Your task to perform on an android device: change the clock display to digital Image 0: 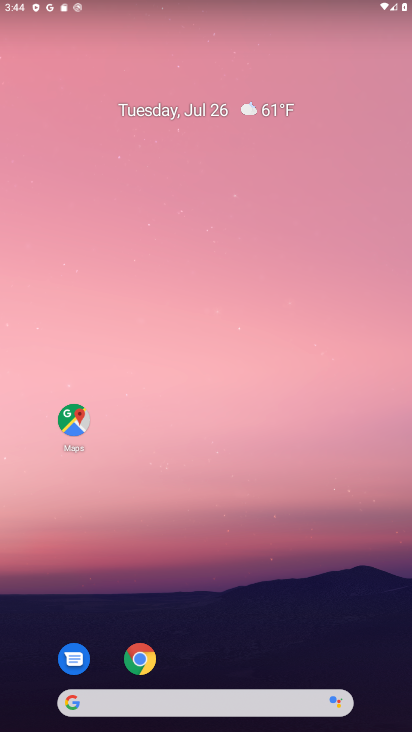
Step 0: drag from (320, 502) to (277, 0)
Your task to perform on an android device: change the clock display to digital Image 1: 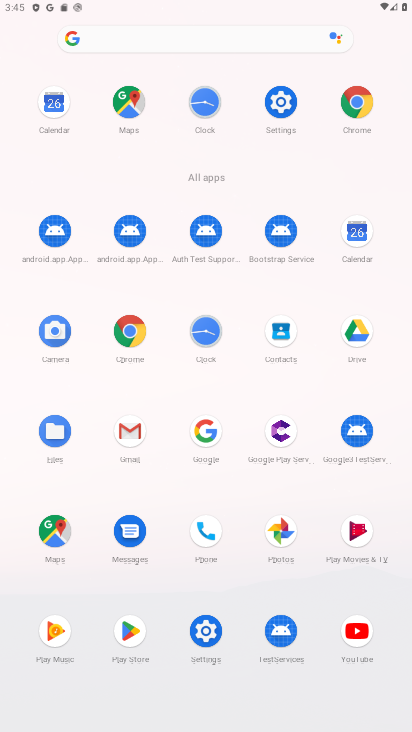
Step 1: click (199, 99)
Your task to perform on an android device: change the clock display to digital Image 2: 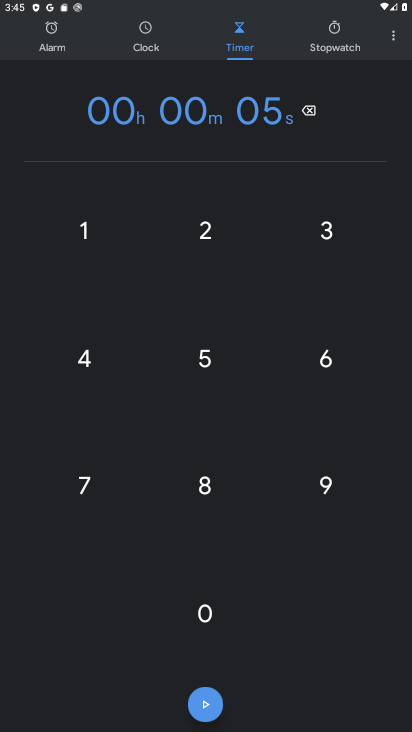
Step 2: click (387, 37)
Your task to perform on an android device: change the clock display to digital Image 3: 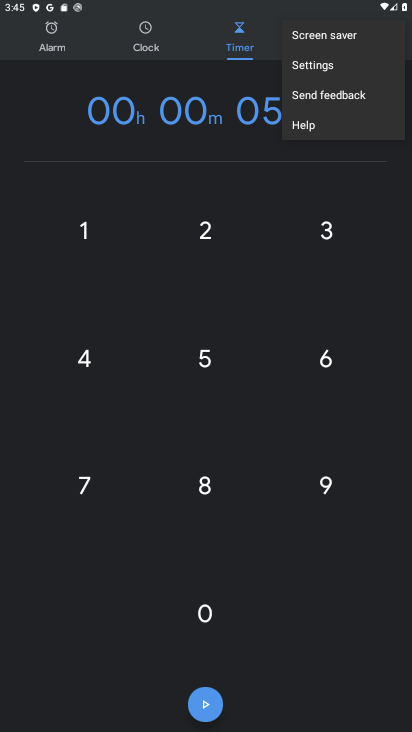
Step 3: click (321, 61)
Your task to perform on an android device: change the clock display to digital Image 4: 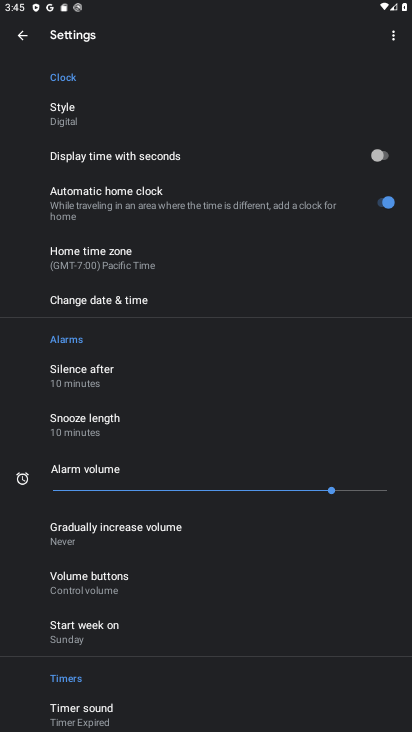
Step 4: click (55, 130)
Your task to perform on an android device: change the clock display to digital Image 5: 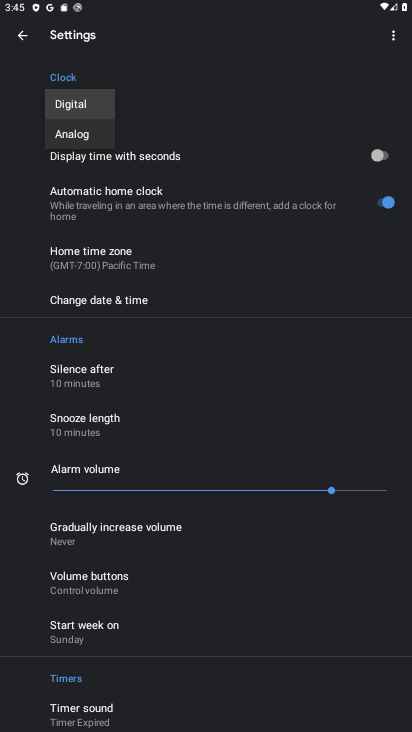
Step 5: task complete